Your task to perform on an android device: Open CNN.com Image 0: 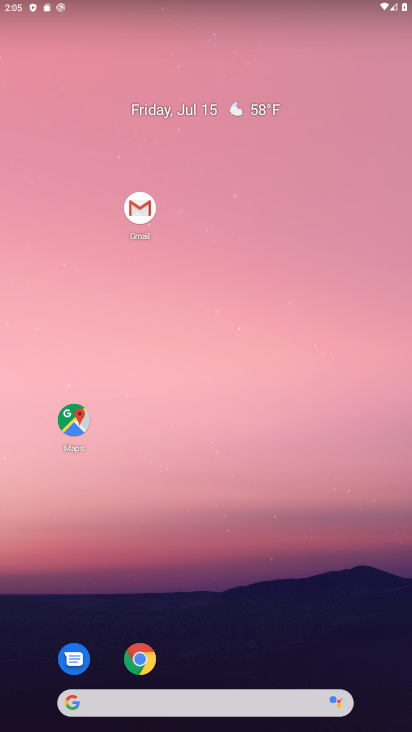
Step 0: click (146, 661)
Your task to perform on an android device: Open CNN.com Image 1: 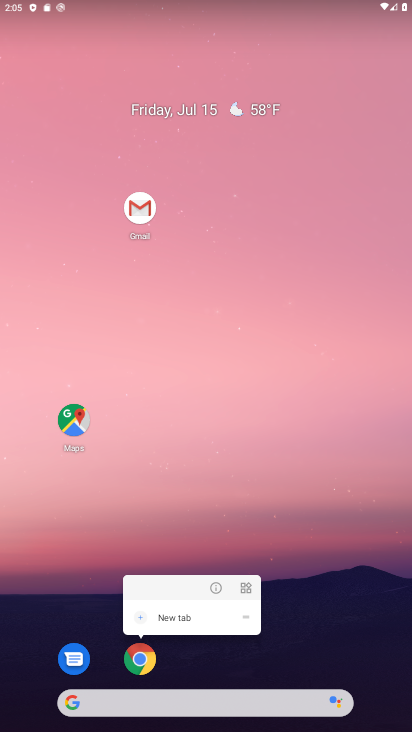
Step 1: click (149, 661)
Your task to perform on an android device: Open CNN.com Image 2: 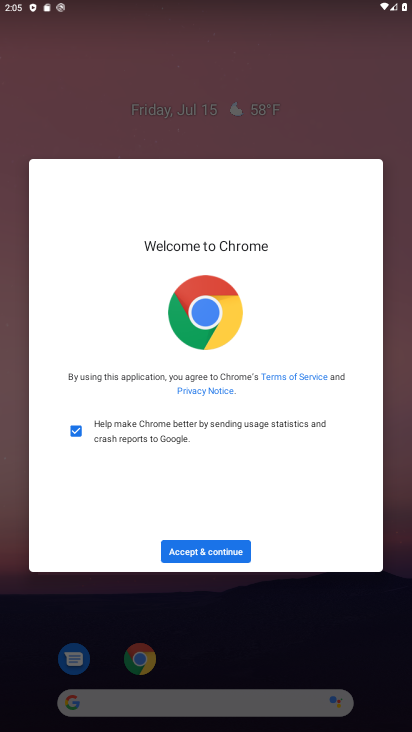
Step 2: click (194, 554)
Your task to perform on an android device: Open CNN.com Image 3: 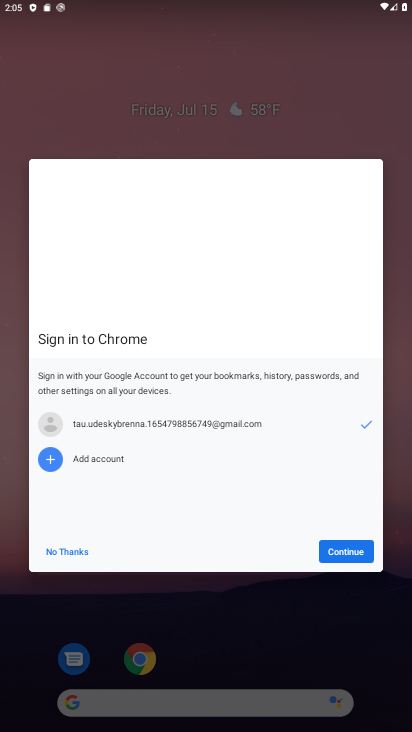
Step 3: click (364, 551)
Your task to perform on an android device: Open CNN.com Image 4: 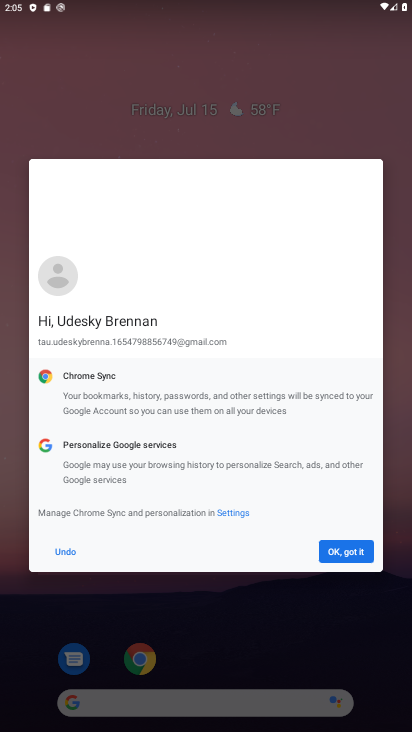
Step 4: click (364, 547)
Your task to perform on an android device: Open CNN.com Image 5: 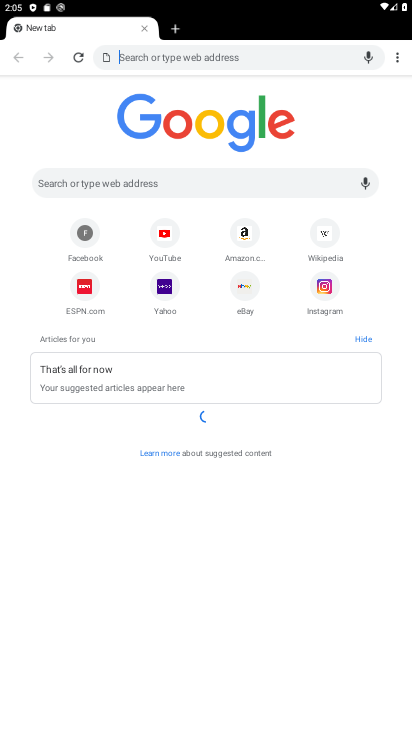
Step 5: click (220, 179)
Your task to perform on an android device: Open CNN.com Image 6: 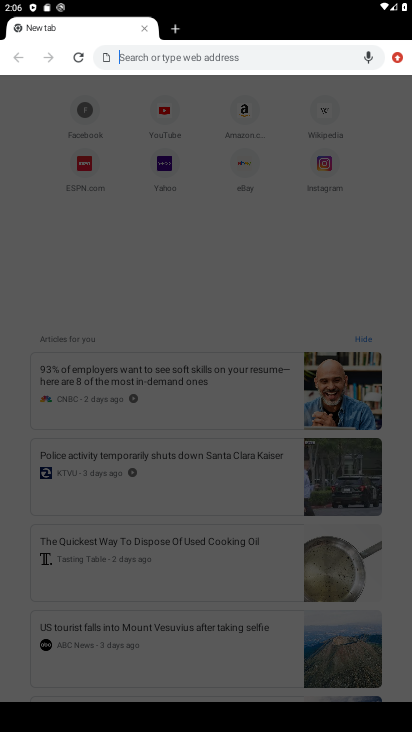
Step 6: type "cnn"
Your task to perform on an android device: Open CNN.com Image 7: 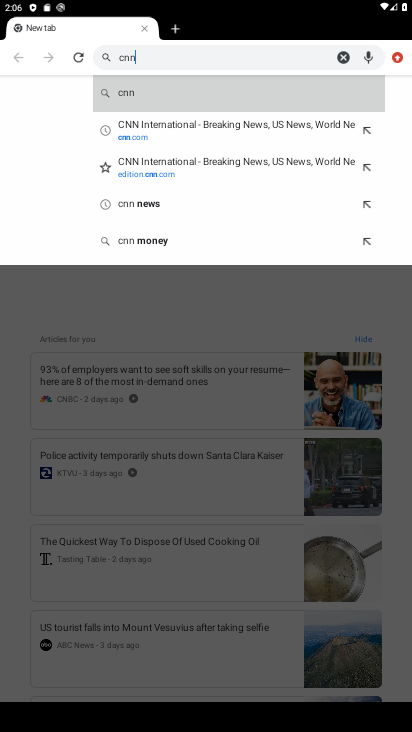
Step 7: click (183, 93)
Your task to perform on an android device: Open CNN.com Image 8: 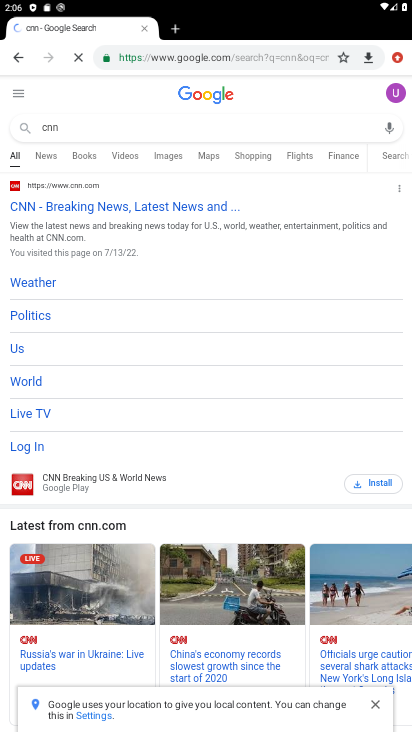
Step 8: click (126, 208)
Your task to perform on an android device: Open CNN.com Image 9: 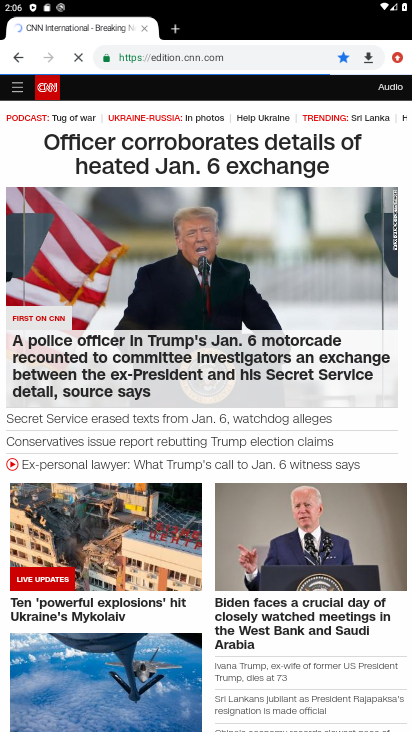
Step 9: task complete